Your task to perform on an android device: Open the map Image 0: 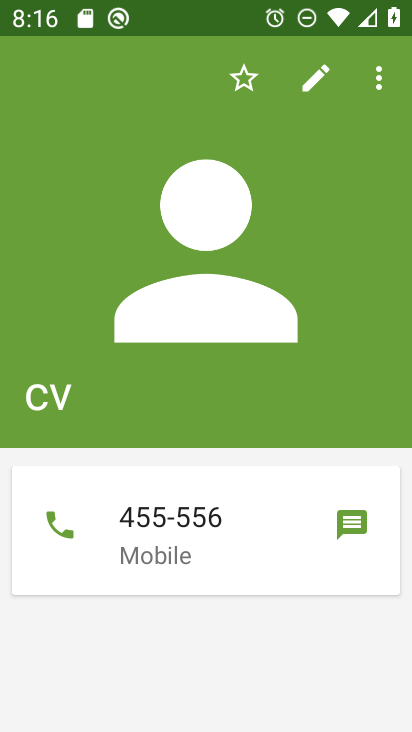
Step 0: press home button
Your task to perform on an android device: Open the map Image 1: 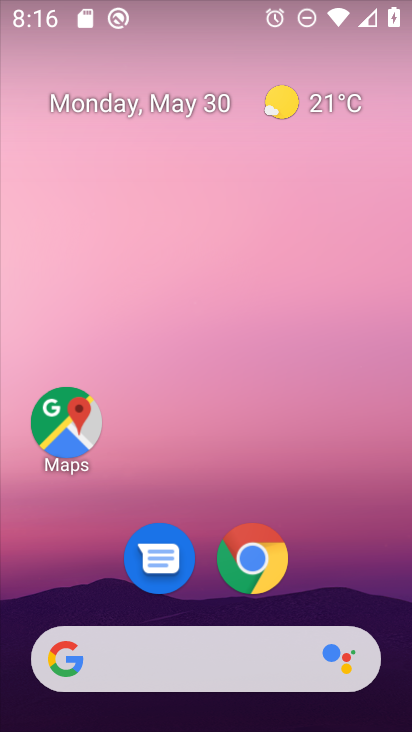
Step 1: click (52, 450)
Your task to perform on an android device: Open the map Image 2: 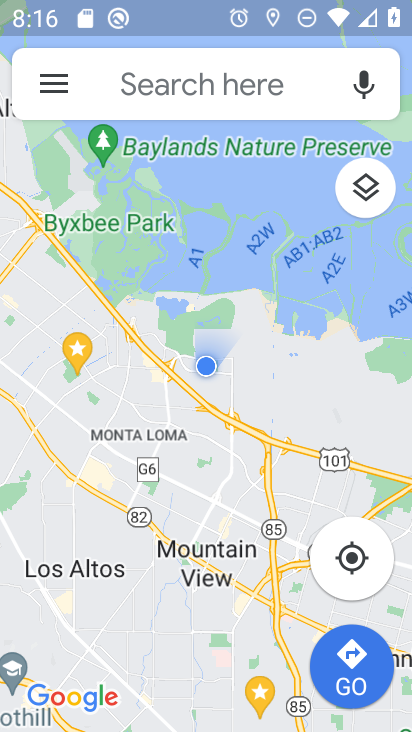
Step 2: click (54, 79)
Your task to perform on an android device: Open the map Image 3: 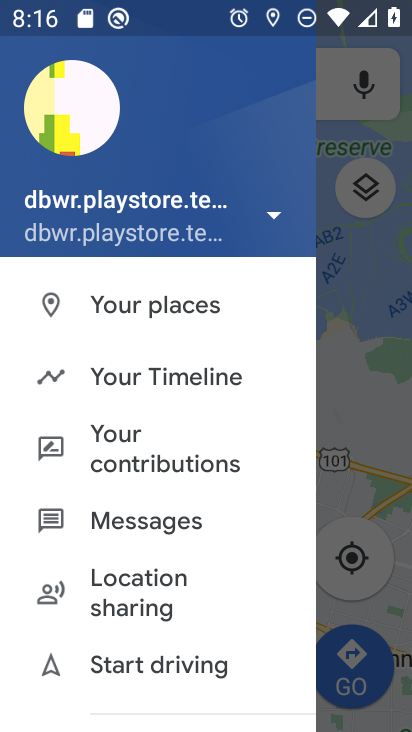
Step 3: click (176, 295)
Your task to perform on an android device: Open the map Image 4: 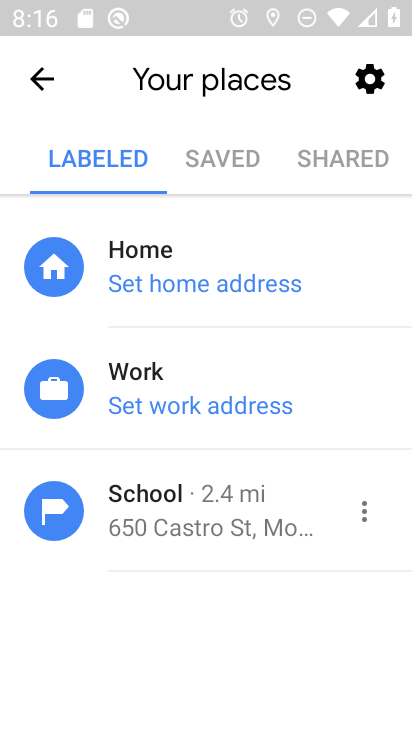
Step 4: task complete